Your task to perform on an android device: toggle priority inbox in the gmail app Image 0: 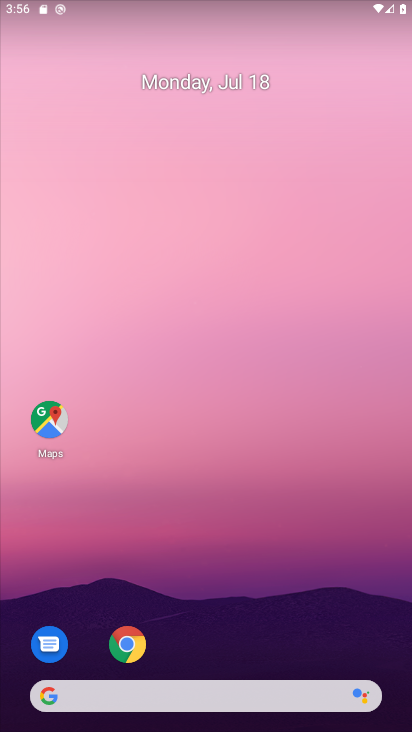
Step 0: drag from (235, 656) to (230, 155)
Your task to perform on an android device: toggle priority inbox in the gmail app Image 1: 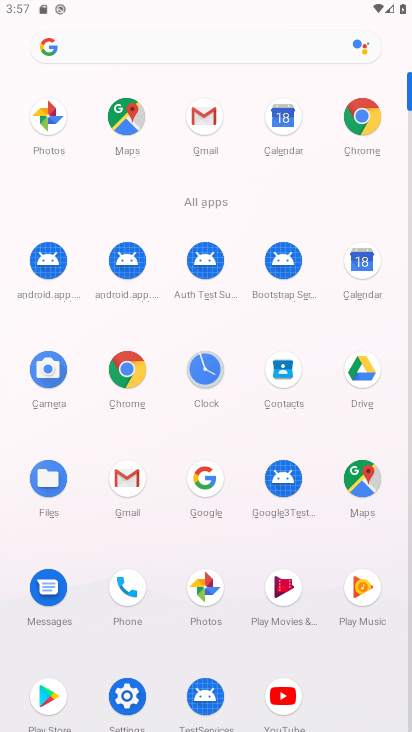
Step 1: click (192, 133)
Your task to perform on an android device: toggle priority inbox in the gmail app Image 2: 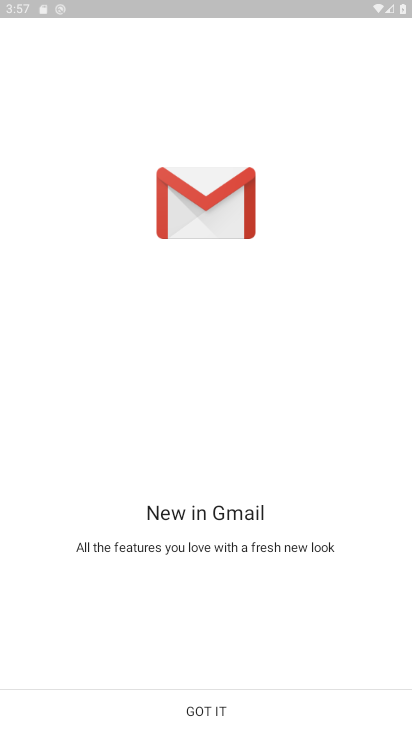
Step 2: task complete